Your task to perform on an android device: turn on showing notifications on the lock screen Image 0: 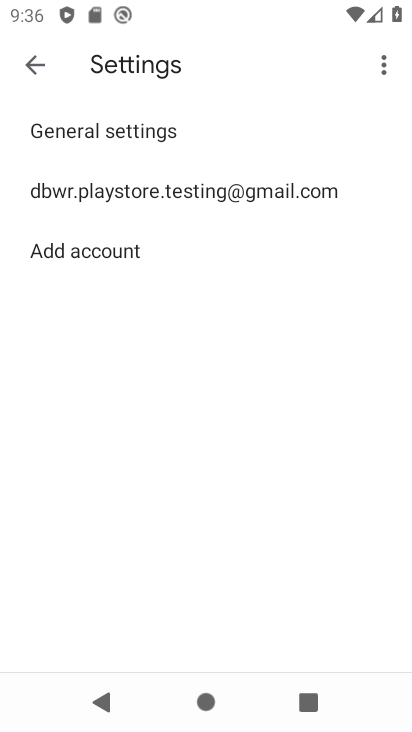
Step 0: press home button
Your task to perform on an android device: turn on showing notifications on the lock screen Image 1: 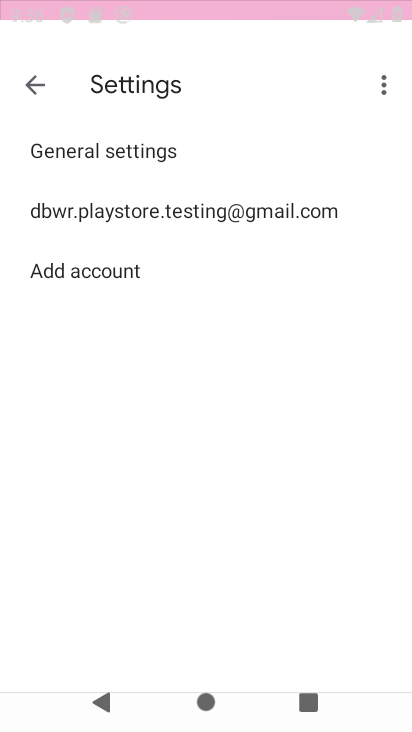
Step 1: press home button
Your task to perform on an android device: turn on showing notifications on the lock screen Image 2: 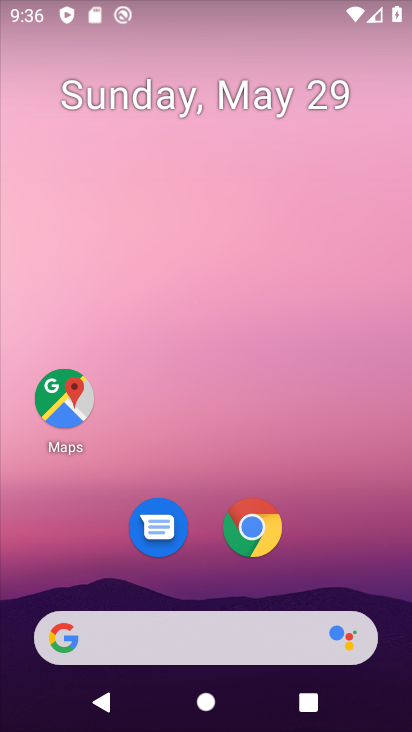
Step 2: drag from (375, 515) to (358, 74)
Your task to perform on an android device: turn on showing notifications on the lock screen Image 3: 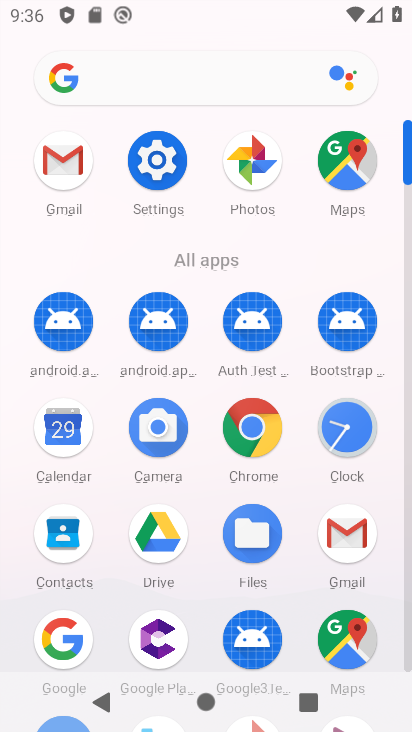
Step 3: click (163, 157)
Your task to perform on an android device: turn on showing notifications on the lock screen Image 4: 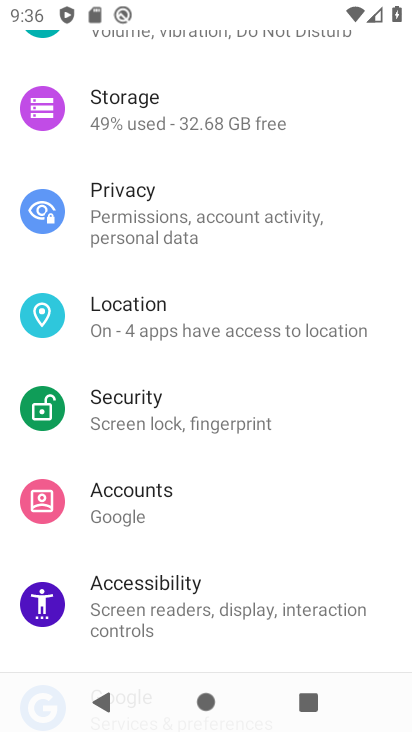
Step 4: drag from (262, 133) to (318, 610)
Your task to perform on an android device: turn on showing notifications on the lock screen Image 5: 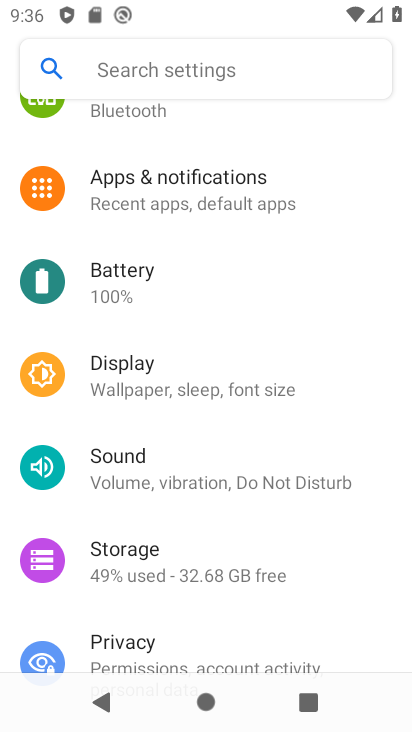
Step 5: click (237, 183)
Your task to perform on an android device: turn on showing notifications on the lock screen Image 6: 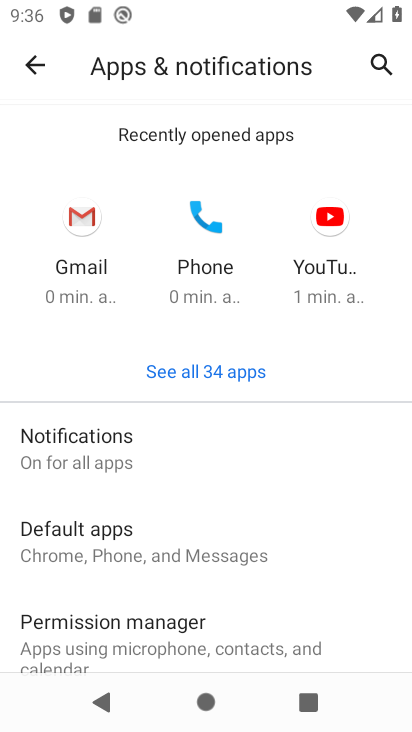
Step 6: click (222, 443)
Your task to perform on an android device: turn on showing notifications on the lock screen Image 7: 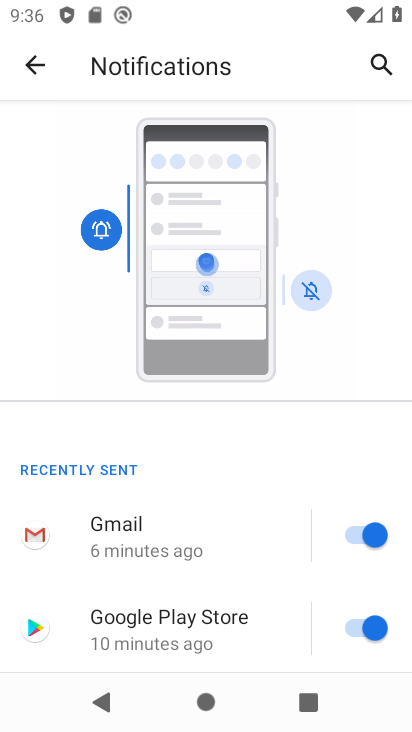
Step 7: drag from (280, 536) to (375, 72)
Your task to perform on an android device: turn on showing notifications on the lock screen Image 8: 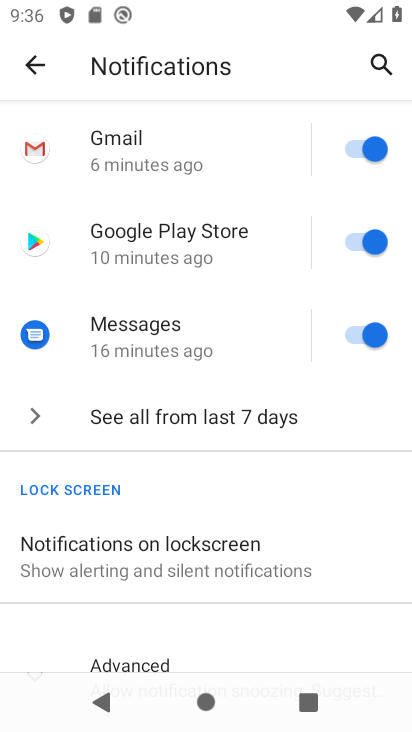
Step 8: click (205, 547)
Your task to perform on an android device: turn on showing notifications on the lock screen Image 9: 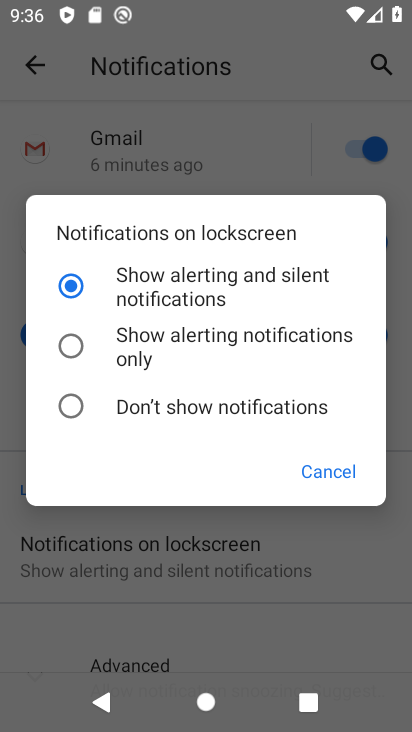
Step 9: click (222, 329)
Your task to perform on an android device: turn on showing notifications on the lock screen Image 10: 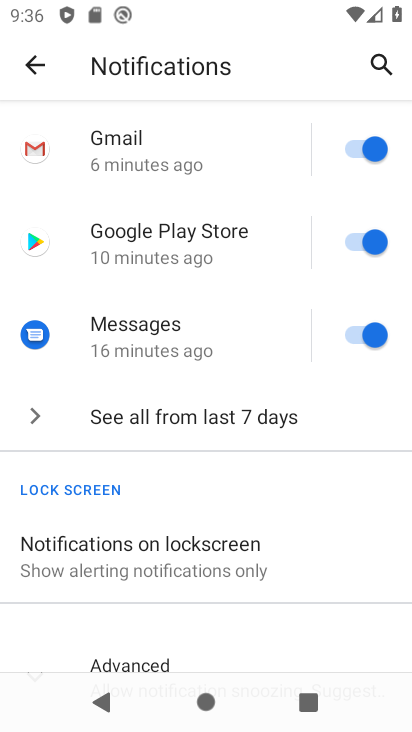
Step 10: task complete